Your task to perform on an android device: Open eBay Image 0: 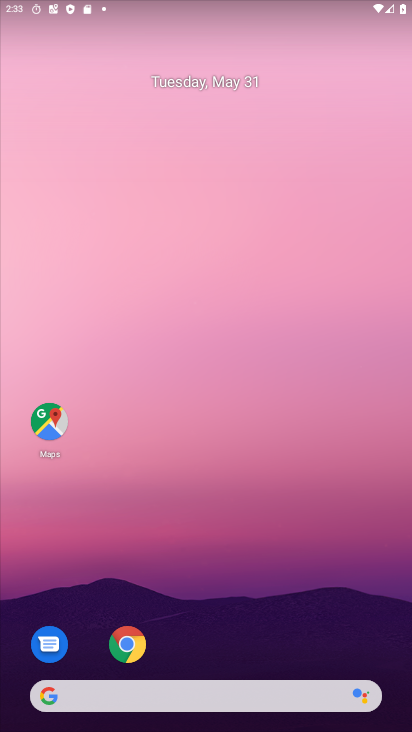
Step 0: click (130, 647)
Your task to perform on an android device: Open eBay Image 1: 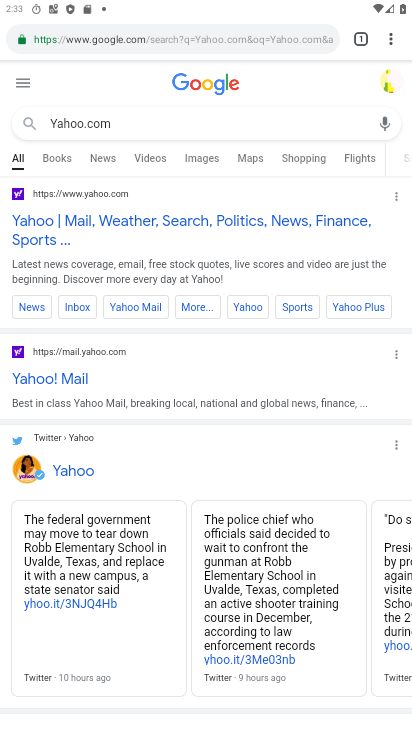
Step 1: click (331, 38)
Your task to perform on an android device: Open eBay Image 2: 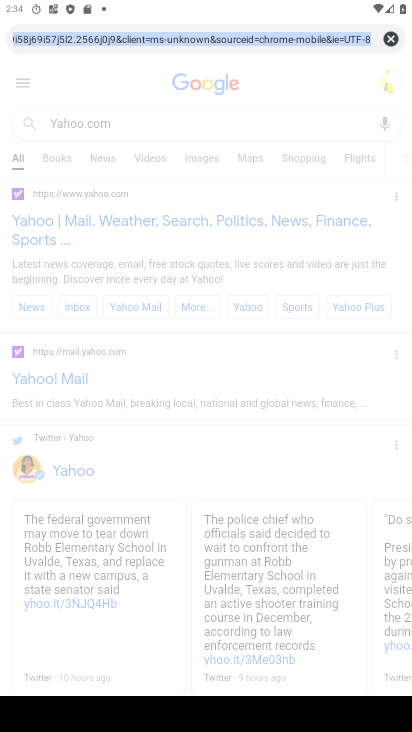
Step 2: click (384, 34)
Your task to perform on an android device: Open eBay Image 3: 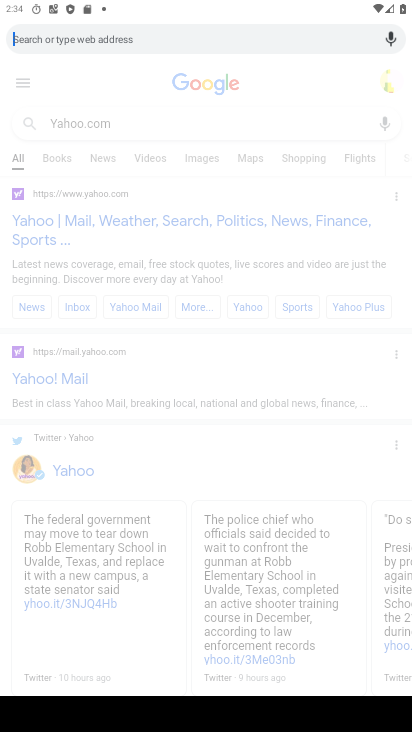
Step 3: type "eBay"
Your task to perform on an android device: Open eBay Image 4: 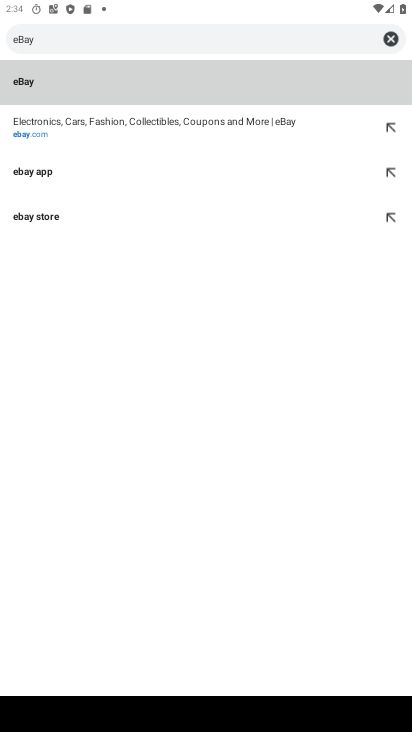
Step 4: click (16, 75)
Your task to perform on an android device: Open eBay Image 5: 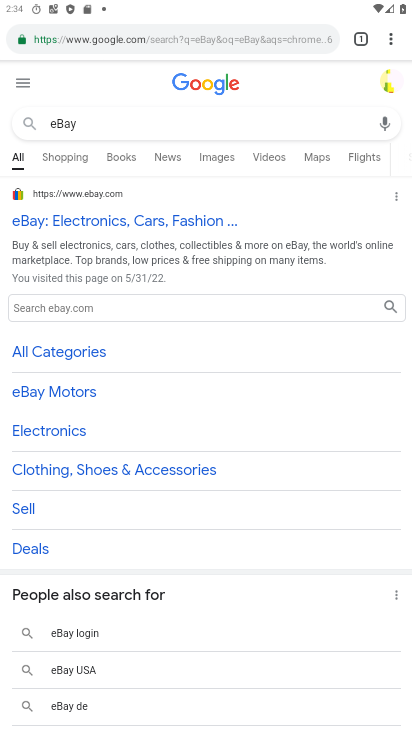
Step 5: task complete